Your task to perform on an android device: Turn off the flashlight Image 0: 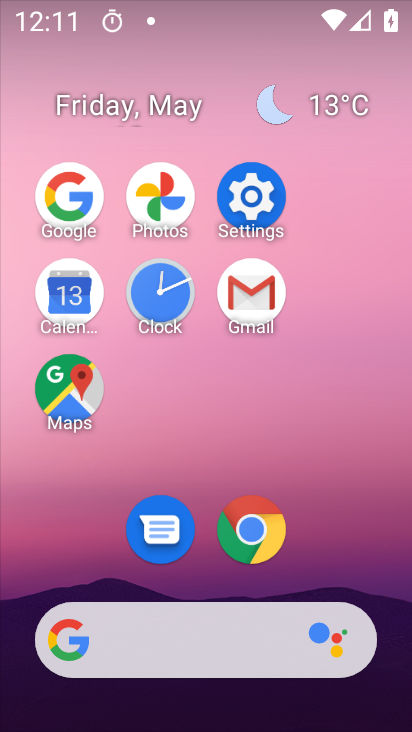
Step 0: drag from (294, 0) to (246, 563)
Your task to perform on an android device: Turn off the flashlight Image 1: 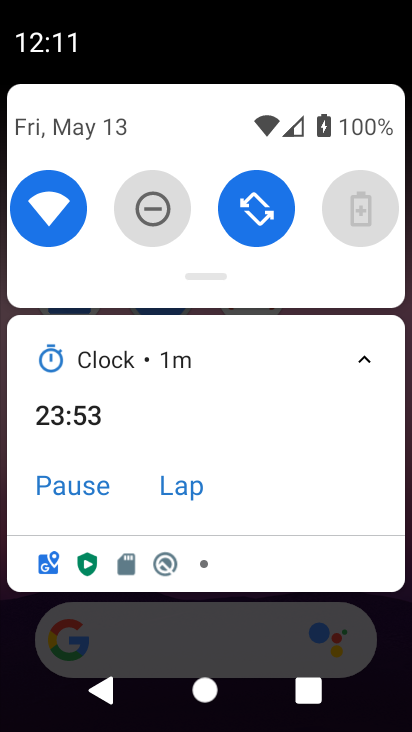
Step 1: task complete